Your task to perform on an android device: add a contact in the contacts app Image 0: 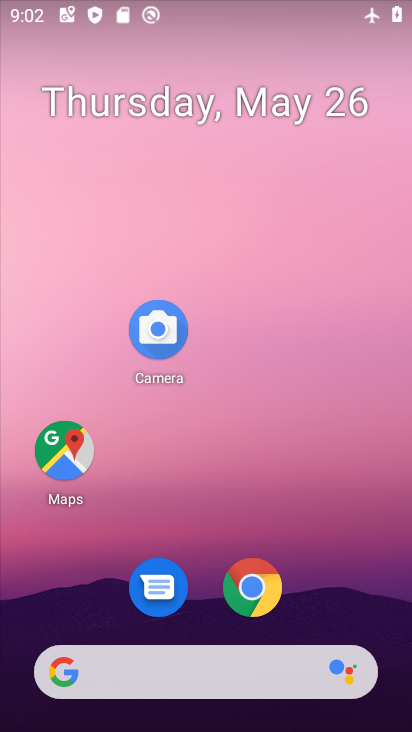
Step 0: drag from (200, 621) to (246, 178)
Your task to perform on an android device: add a contact in the contacts app Image 1: 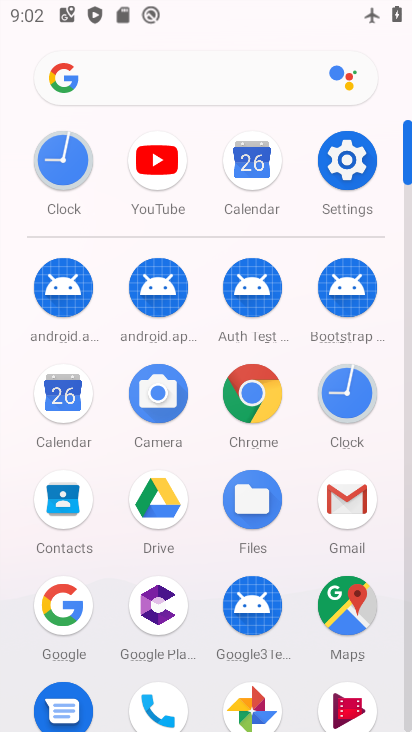
Step 1: click (86, 506)
Your task to perform on an android device: add a contact in the contacts app Image 2: 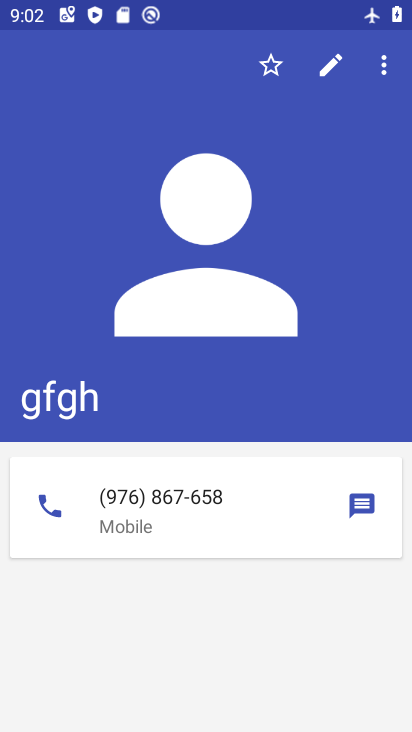
Step 2: press back button
Your task to perform on an android device: add a contact in the contacts app Image 3: 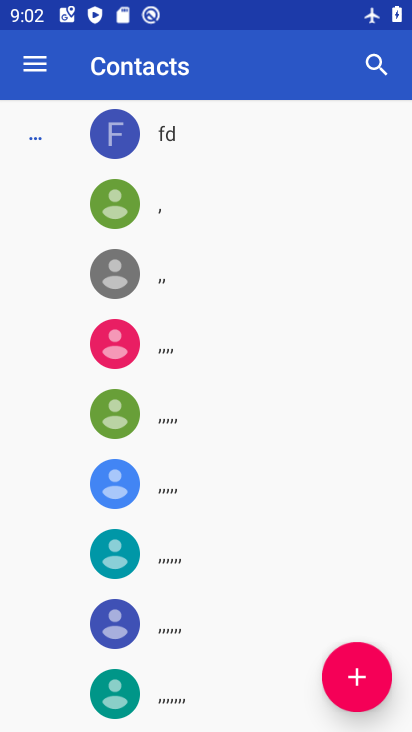
Step 3: click (349, 667)
Your task to perform on an android device: add a contact in the contacts app Image 4: 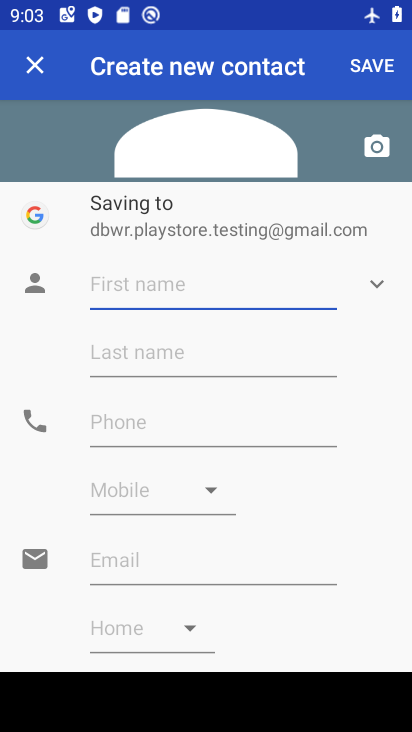
Step 4: type "dfbfdb"
Your task to perform on an android device: add a contact in the contacts app Image 5: 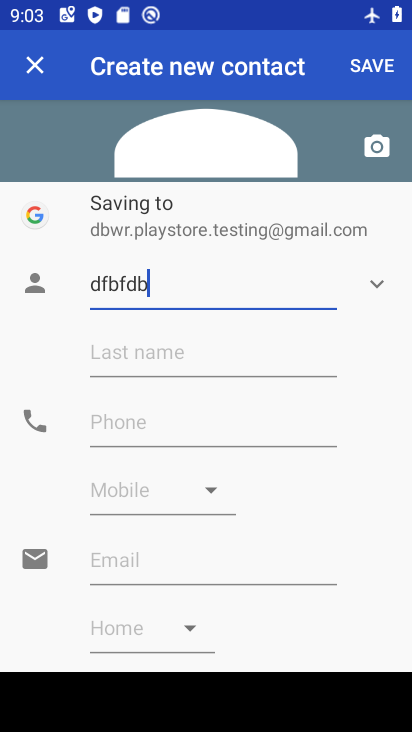
Step 5: click (171, 441)
Your task to perform on an android device: add a contact in the contacts app Image 6: 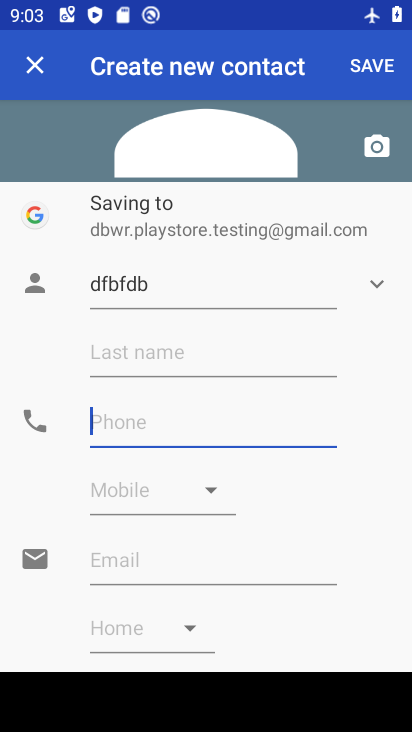
Step 6: type "97567868585"
Your task to perform on an android device: add a contact in the contacts app Image 7: 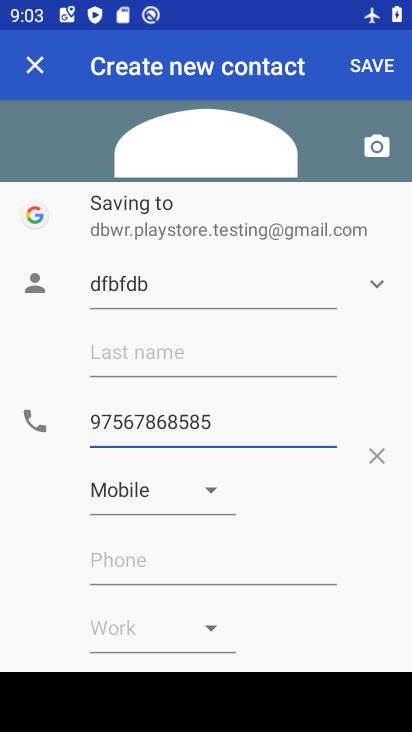
Step 7: click (387, 67)
Your task to perform on an android device: add a contact in the contacts app Image 8: 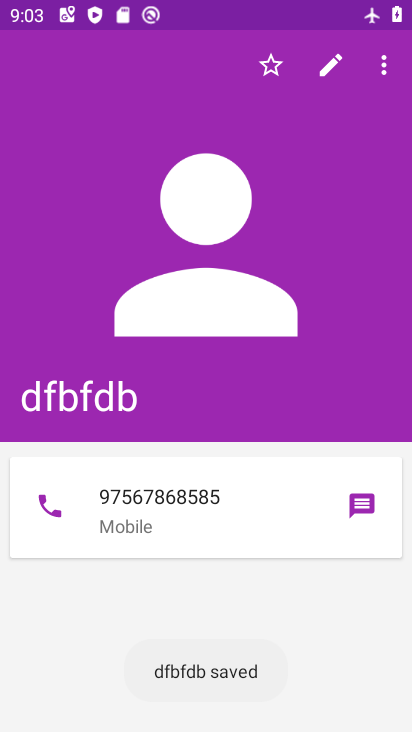
Step 8: task complete